Your task to perform on an android device: set the stopwatch Image 0: 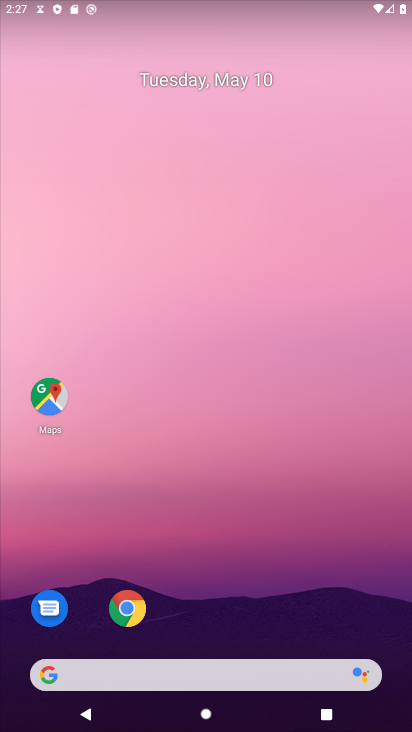
Step 0: drag from (325, 606) to (335, 87)
Your task to perform on an android device: set the stopwatch Image 1: 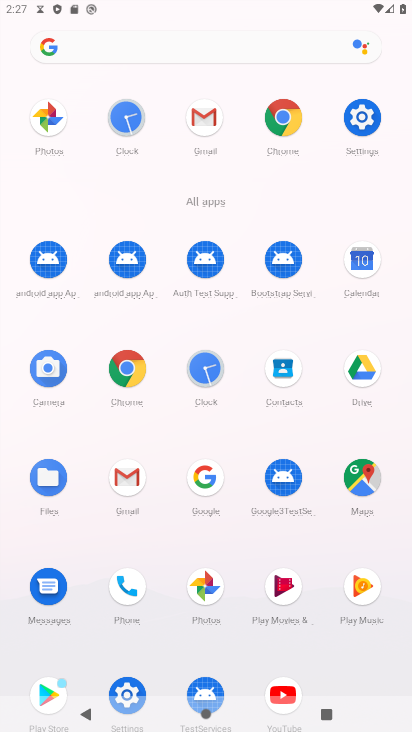
Step 1: click (134, 124)
Your task to perform on an android device: set the stopwatch Image 2: 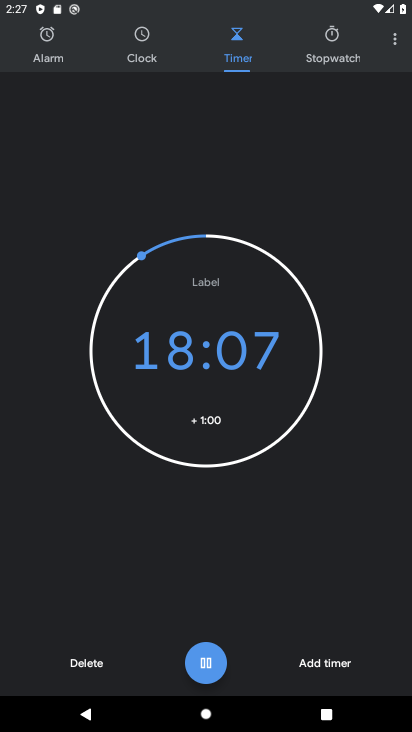
Step 2: click (327, 60)
Your task to perform on an android device: set the stopwatch Image 3: 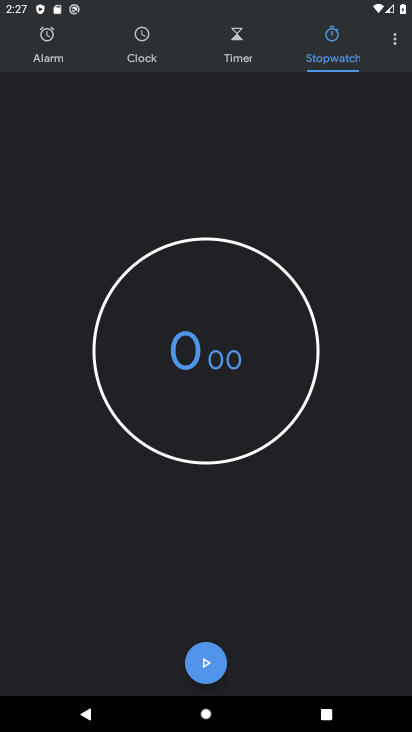
Step 3: click (210, 664)
Your task to perform on an android device: set the stopwatch Image 4: 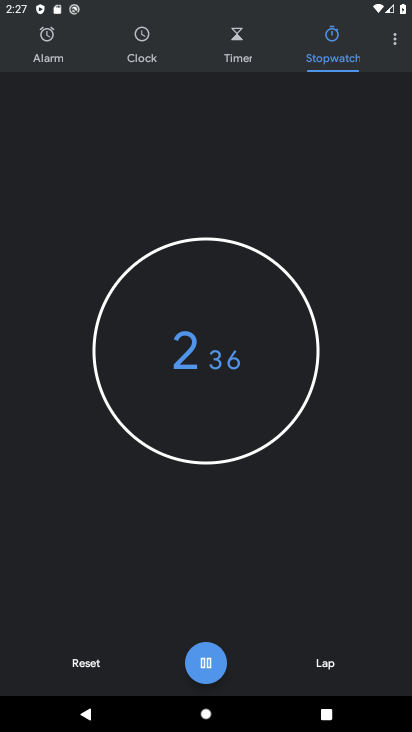
Step 4: click (210, 664)
Your task to perform on an android device: set the stopwatch Image 5: 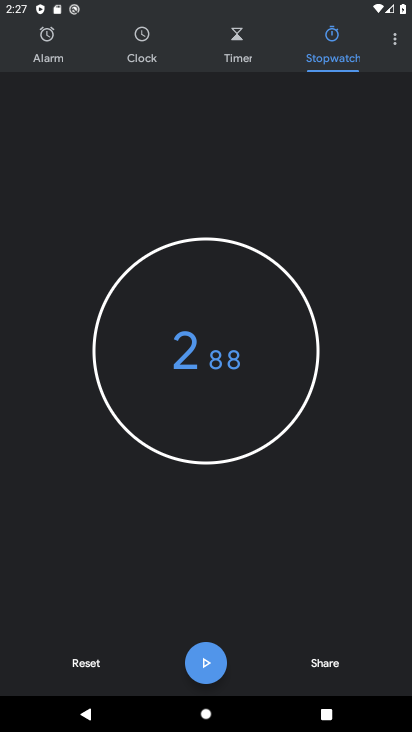
Step 5: click (201, 665)
Your task to perform on an android device: set the stopwatch Image 6: 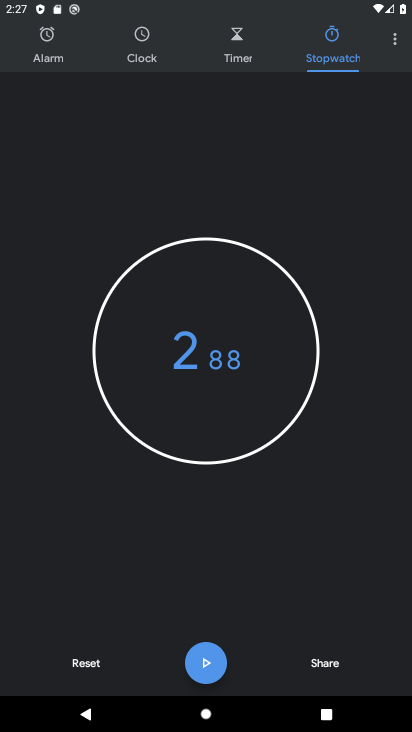
Step 6: click (201, 665)
Your task to perform on an android device: set the stopwatch Image 7: 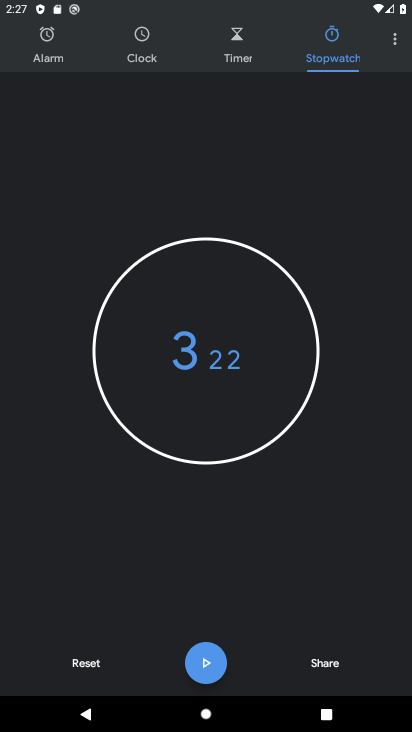
Step 7: task complete